Your task to perform on an android device: Open wifi settings Image 0: 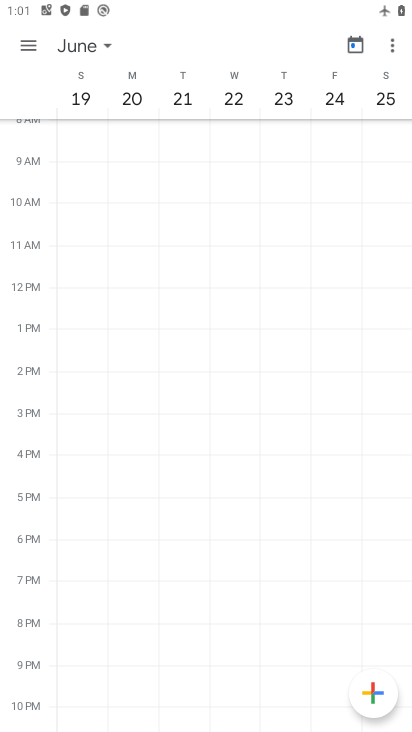
Step 0: press home button
Your task to perform on an android device: Open wifi settings Image 1: 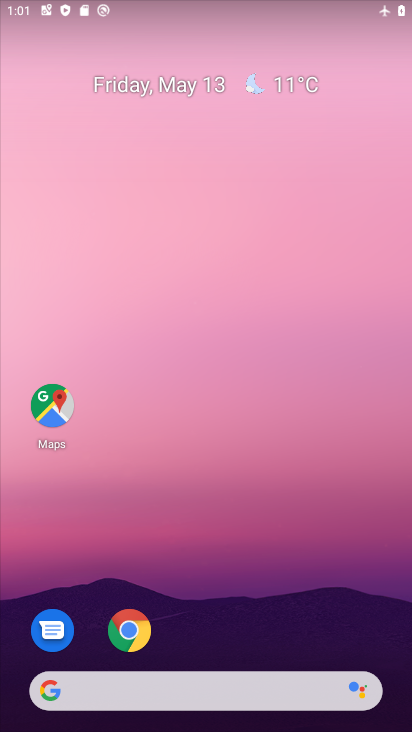
Step 1: drag from (231, 640) to (267, 63)
Your task to perform on an android device: Open wifi settings Image 2: 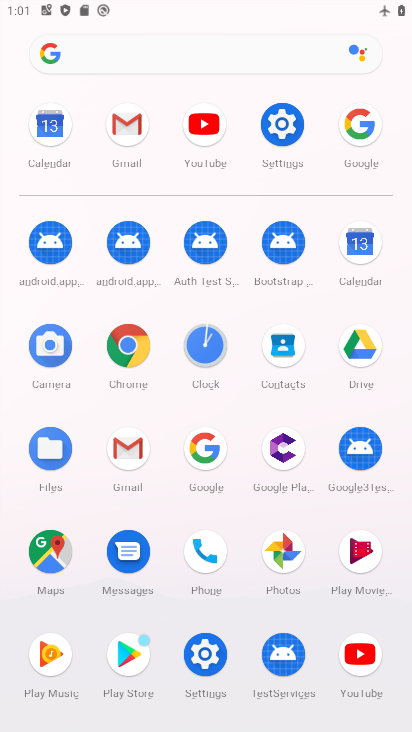
Step 2: click (289, 131)
Your task to perform on an android device: Open wifi settings Image 3: 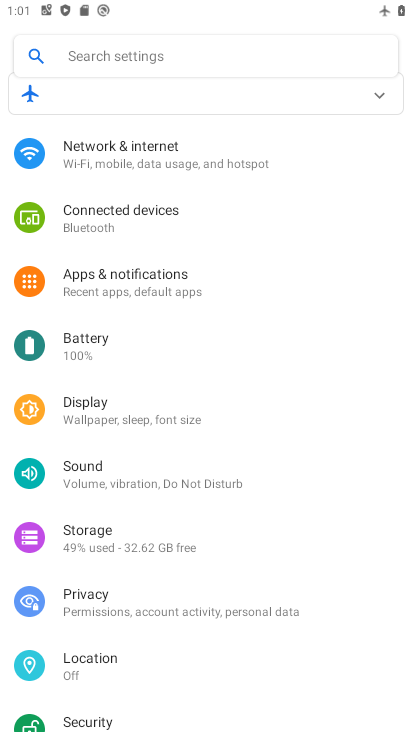
Step 3: click (125, 161)
Your task to perform on an android device: Open wifi settings Image 4: 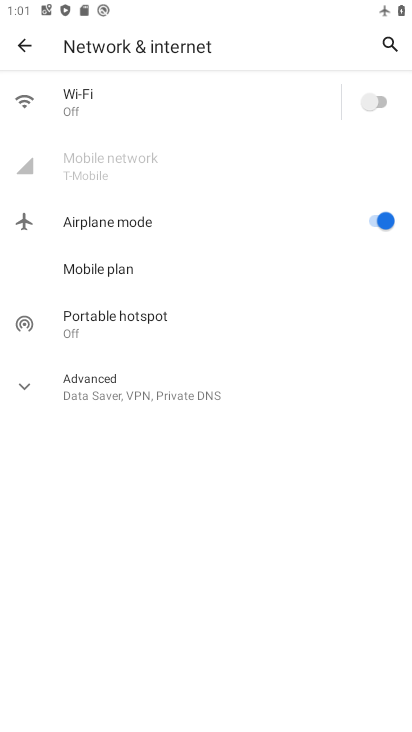
Step 4: click (72, 103)
Your task to perform on an android device: Open wifi settings Image 5: 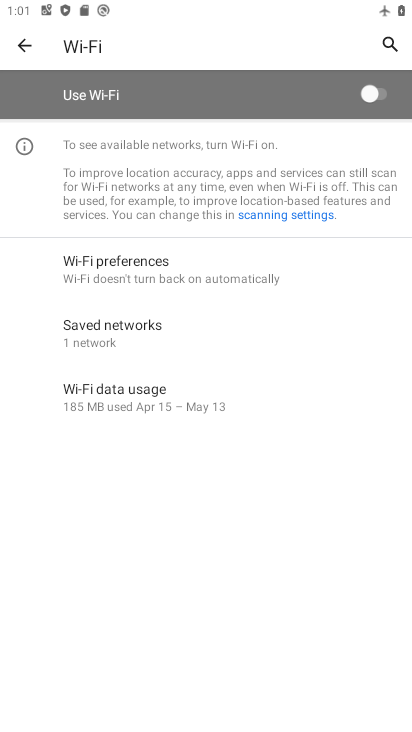
Step 5: task complete